Your task to perform on an android device: Go to Reddit.com Image 0: 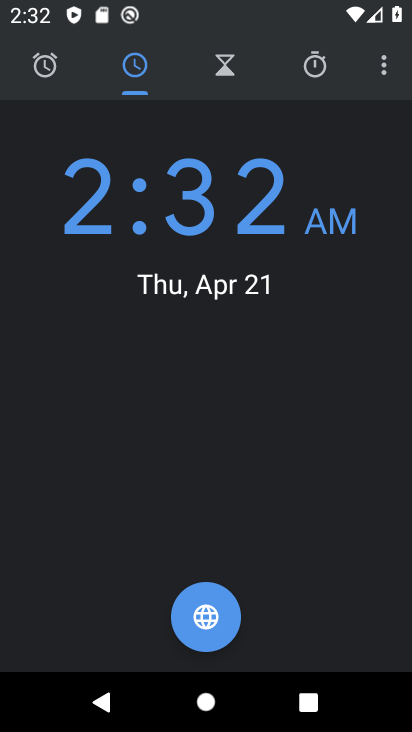
Step 0: click (291, 355)
Your task to perform on an android device: Go to Reddit.com Image 1: 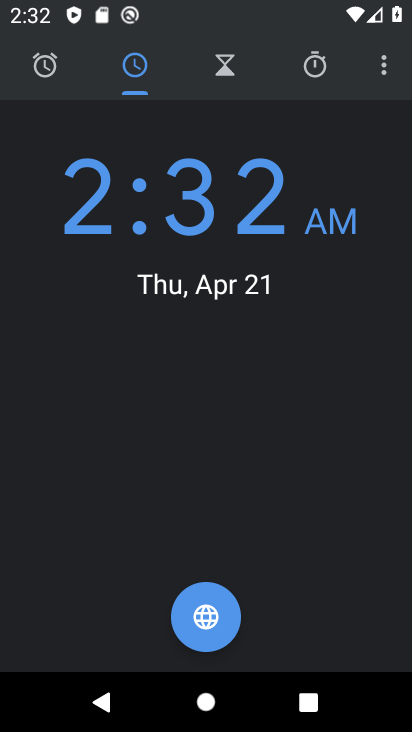
Step 1: press home button
Your task to perform on an android device: Go to Reddit.com Image 2: 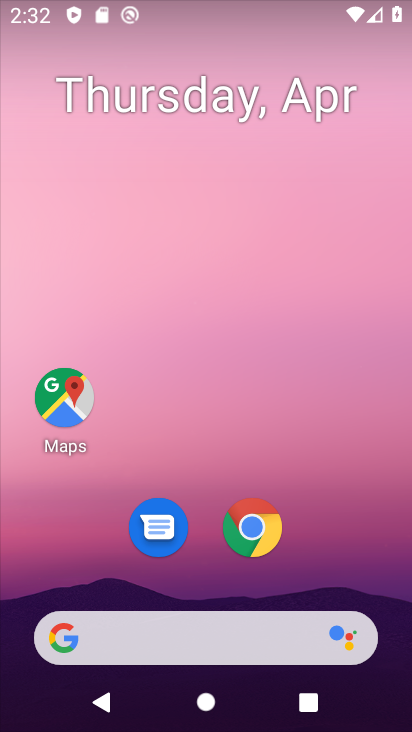
Step 2: drag from (198, 559) to (353, 0)
Your task to perform on an android device: Go to Reddit.com Image 3: 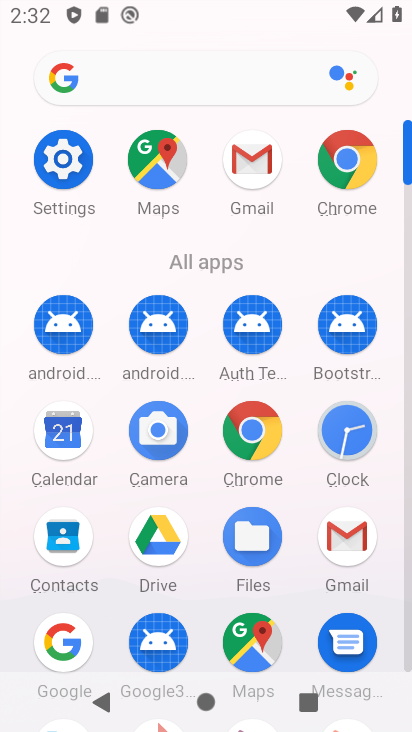
Step 3: click (254, 443)
Your task to perform on an android device: Go to Reddit.com Image 4: 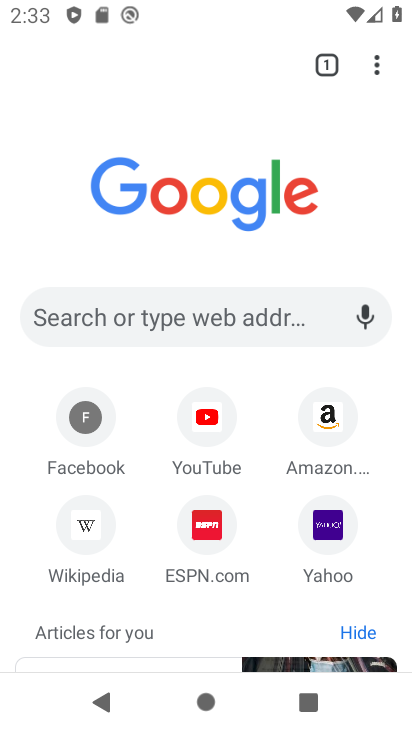
Step 4: click (223, 308)
Your task to perform on an android device: Go to Reddit.com Image 5: 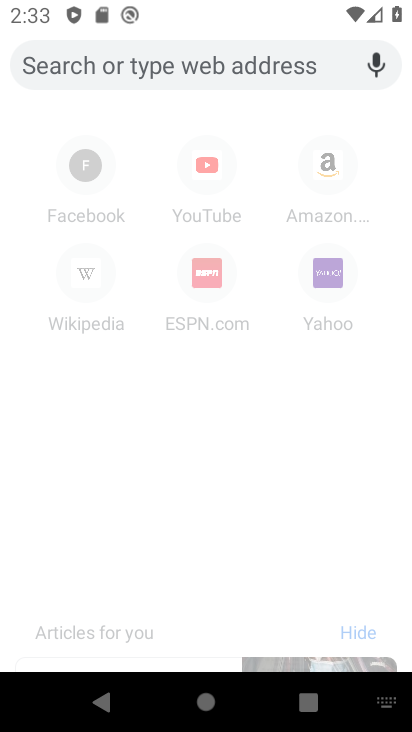
Step 5: type "reddit.com"
Your task to perform on an android device: Go to Reddit.com Image 6: 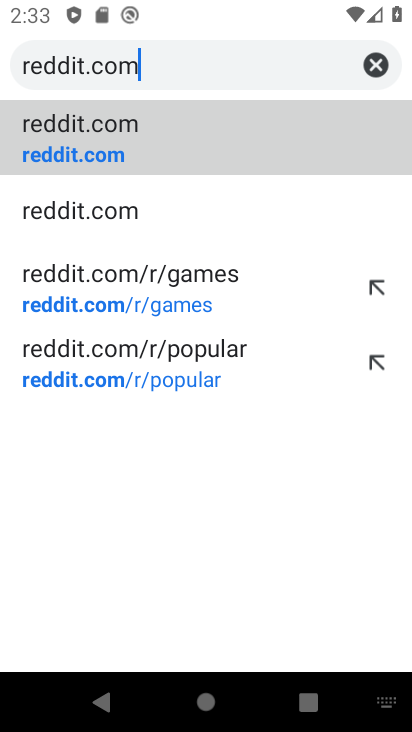
Step 6: click (152, 147)
Your task to perform on an android device: Go to Reddit.com Image 7: 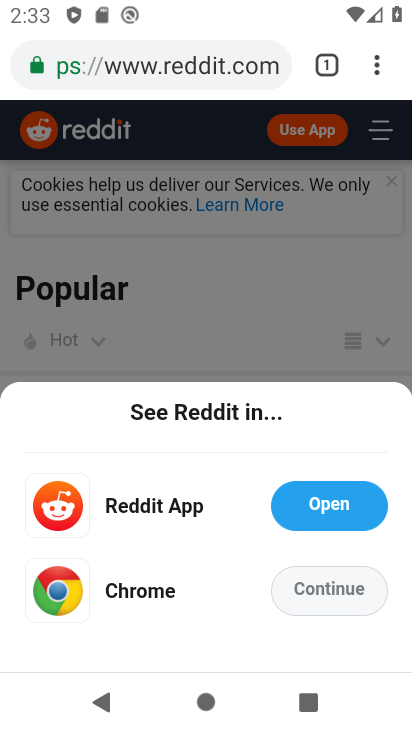
Step 7: task complete